Your task to perform on an android device: add a contact in the contacts app Image 0: 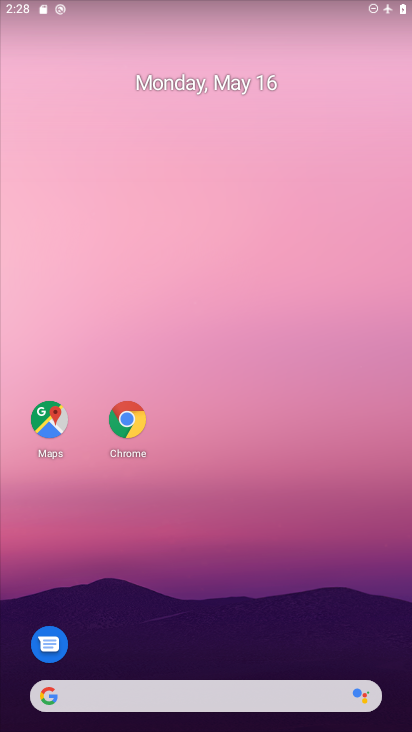
Step 0: drag from (196, 618) to (223, 310)
Your task to perform on an android device: add a contact in the contacts app Image 1: 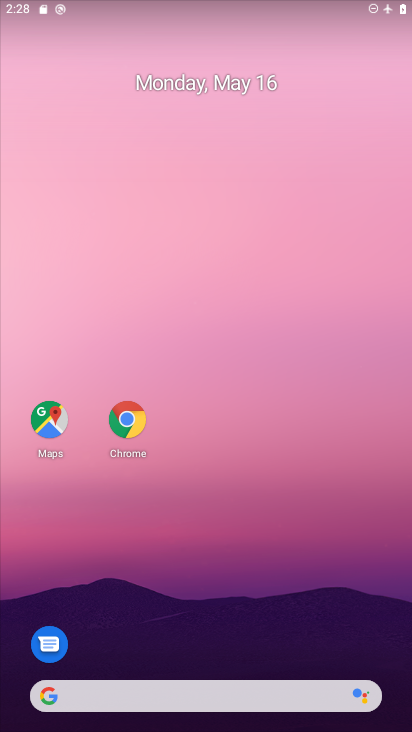
Step 1: drag from (230, 548) to (208, 168)
Your task to perform on an android device: add a contact in the contacts app Image 2: 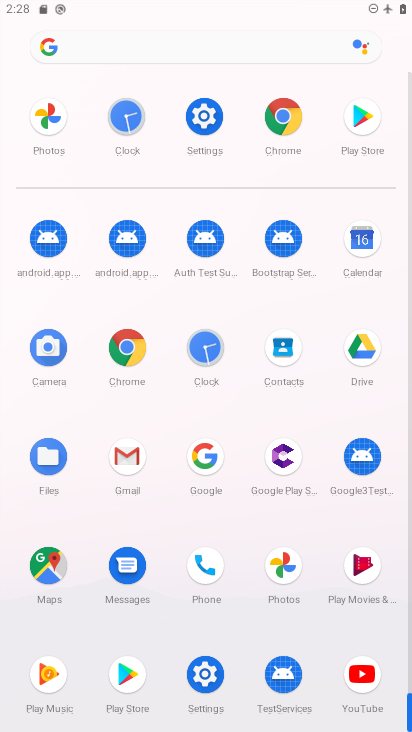
Step 2: click (280, 360)
Your task to perform on an android device: add a contact in the contacts app Image 3: 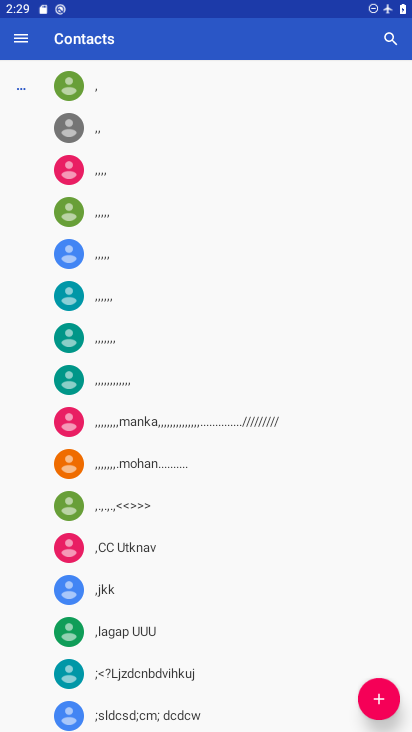
Step 3: drag from (268, 599) to (277, 423)
Your task to perform on an android device: add a contact in the contacts app Image 4: 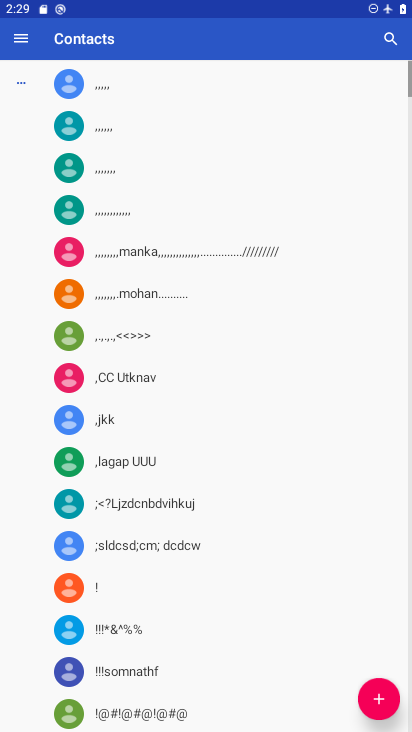
Step 4: click (378, 696)
Your task to perform on an android device: add a contact in the contacts app Image 5: 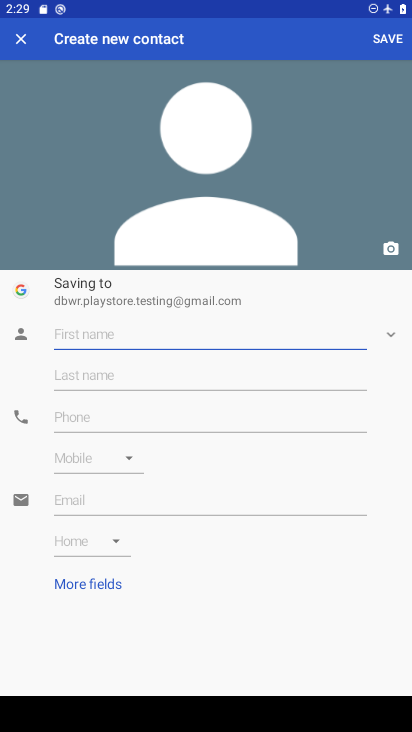
Step 5: click (150, 334)
Your task to perform on an android device: add a contact in the contacts app Image 6: 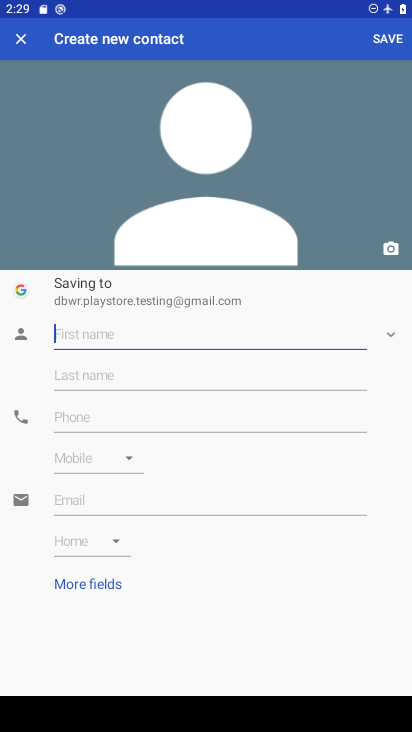
Step 6: type "bvcf"
Your task to perform on an android device: add a contact in the contacts app Image 7: 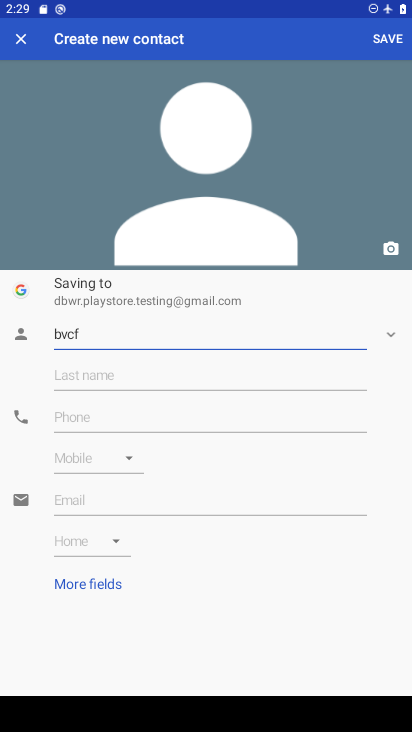
Step 7: click (383, 35)
Your task to perform on an android device: add a contact in the contacts app Image 8: 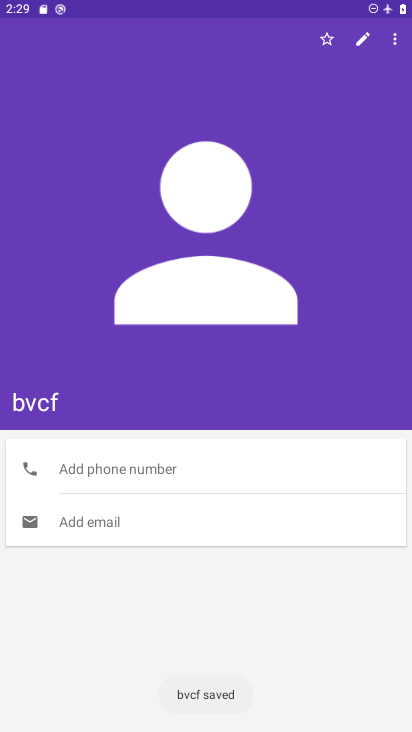
Step 8: task complete